Your task to perform on an android device: toggle javascript in the chrome app Image 0: 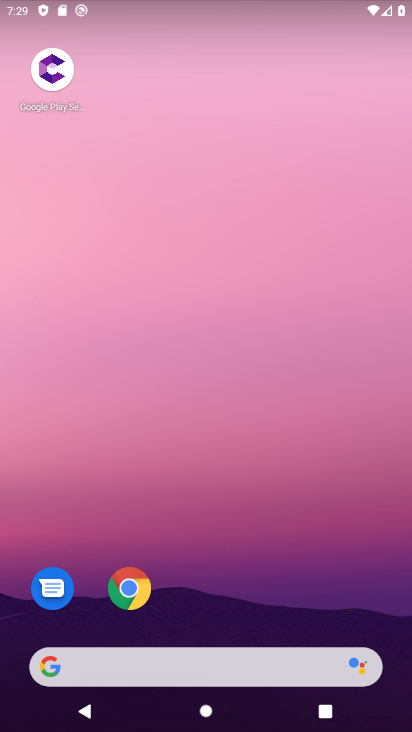
Step 0: drag from (279, 99) to (273, 0)
Your task to perform on an android device: toggle javascript in the chrome app Image 1: 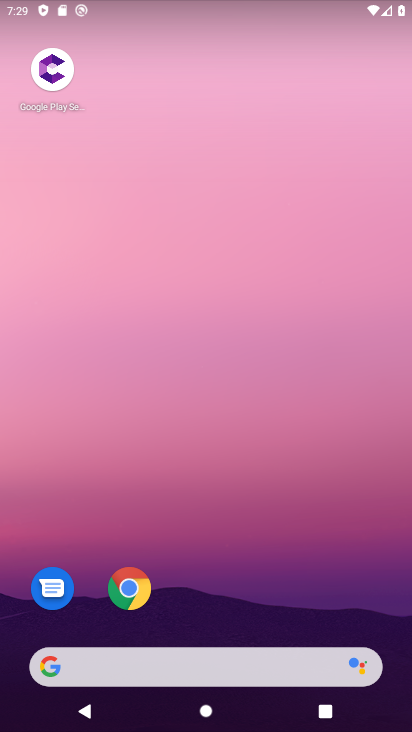
Step 1: drag from (215, 506) to (270, 0)
Your task to perform on an android device: toggle javascript in the chrome app Image 2: 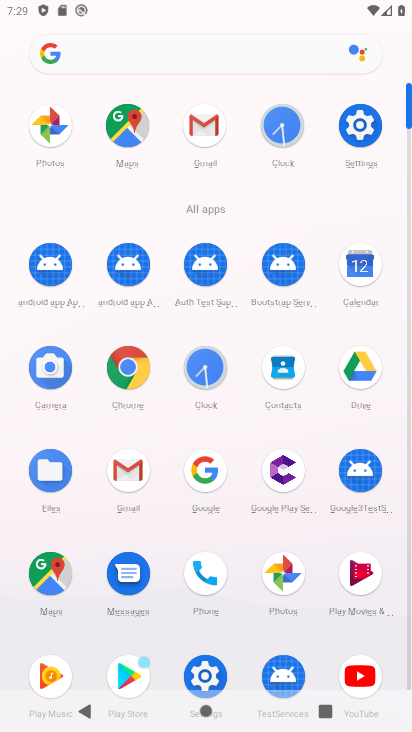
Step 2: click (132, 373)
Your task to perform on an android device: toggle javascript in the chrome app Image 3: 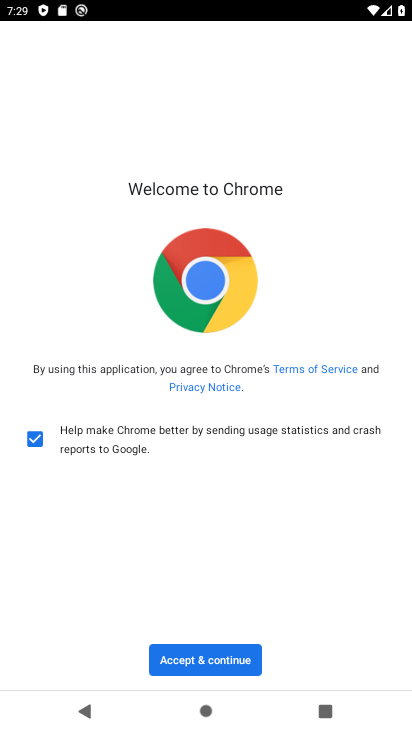
Step 3: click (206, 657)
Your task to perform on an android device: toggle javascript in the chrome app Image 4: 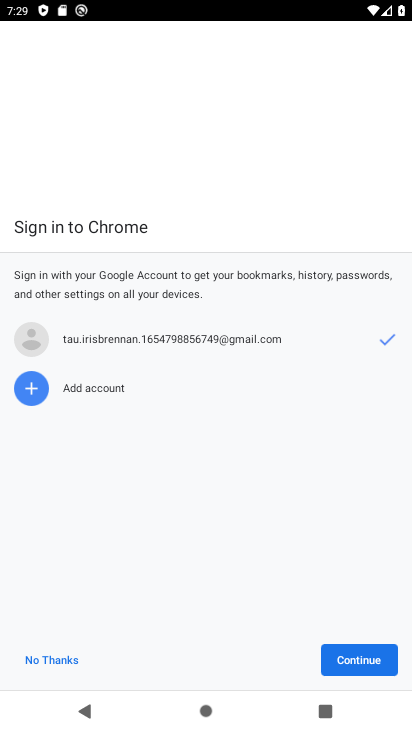
Step 4: click (53, 658)
Your task to perform on an android device: toggle javascript in the chrome app Image 5: 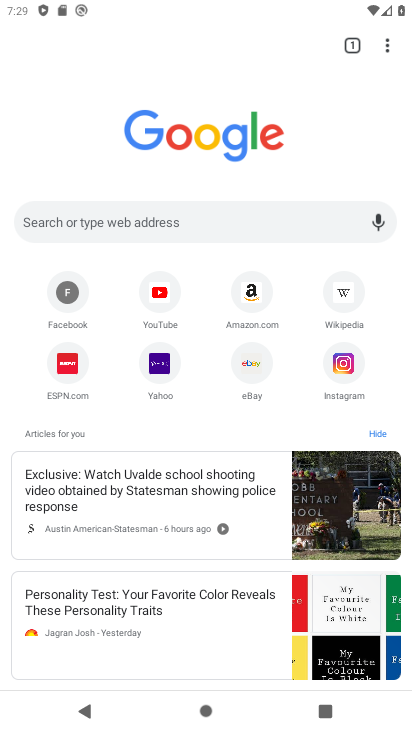
Step 5: drag from (388, 47) to (216, 394)
Your task to perform on an android device: toggle javascript in the chrome app Image 6: 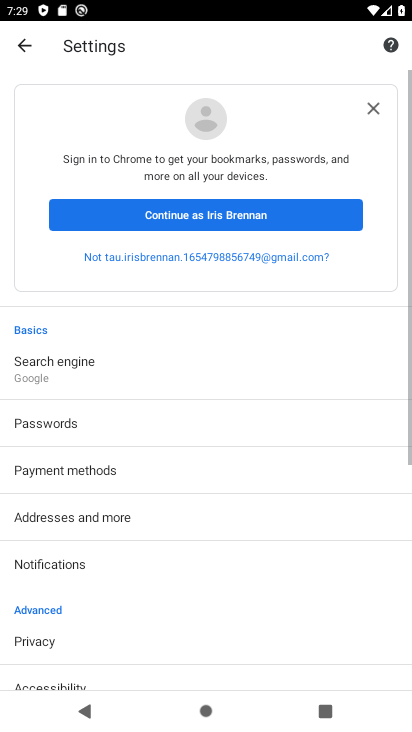
Step 6: drag from (114, 631) to (202, 277)
Your task to perform on an android device: toggle javascript in the chrome app Image 7: 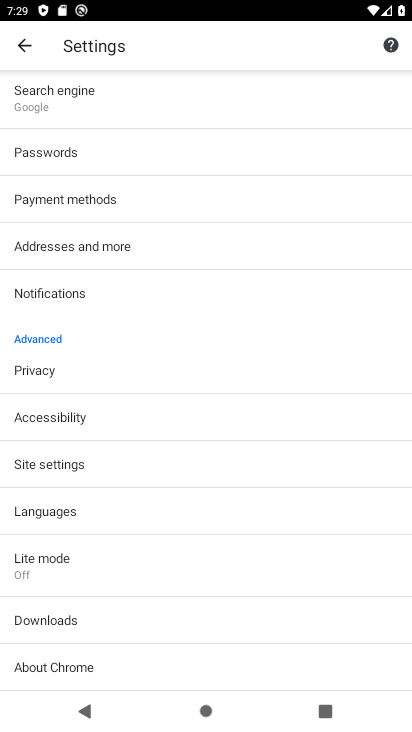
Step 7: click (73, 456)
Your task to perform on an android device: toggle javascript in the chrome app Image 8: 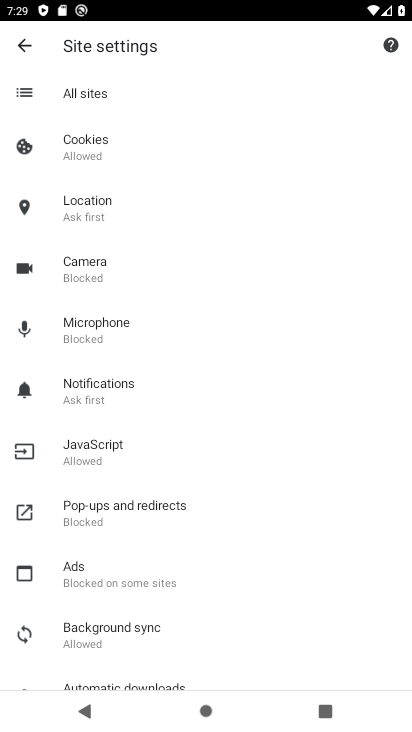
Step 8: click (74, 453)
Your task to perform on an android device: toggle javascript in the chrome app Image 9: 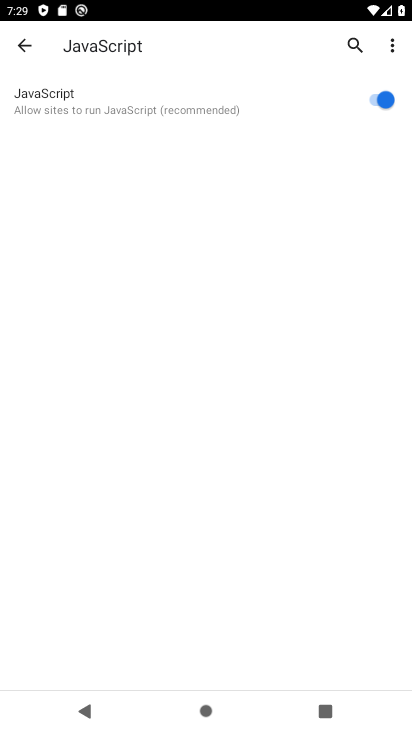
Step 9: click (378, 103)
Your task to perform on an android device: toggle javascript in the chrome app Image 10: 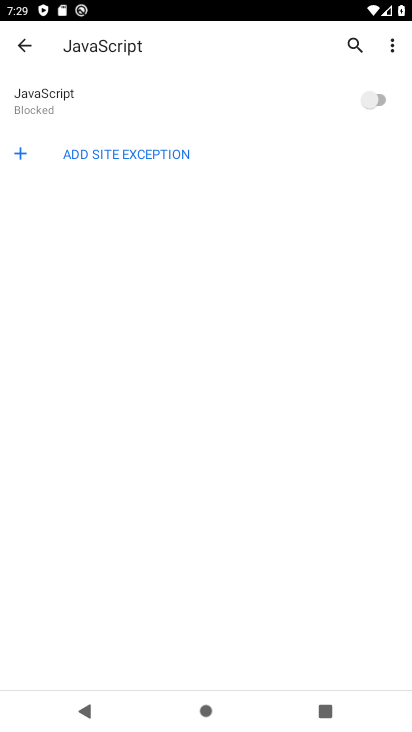
Step 10: task complete